Your task to perform on an android device: Go to Yahoo.com Image 0: 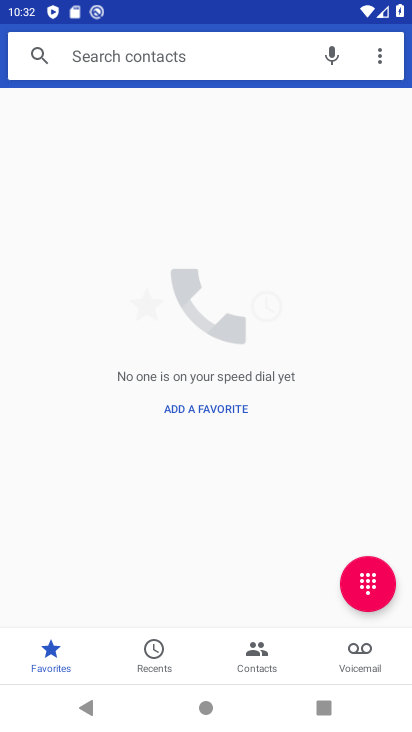
Step 0: press home button
Your task to perform on an android device: Go to Yahoo.com Image 1: 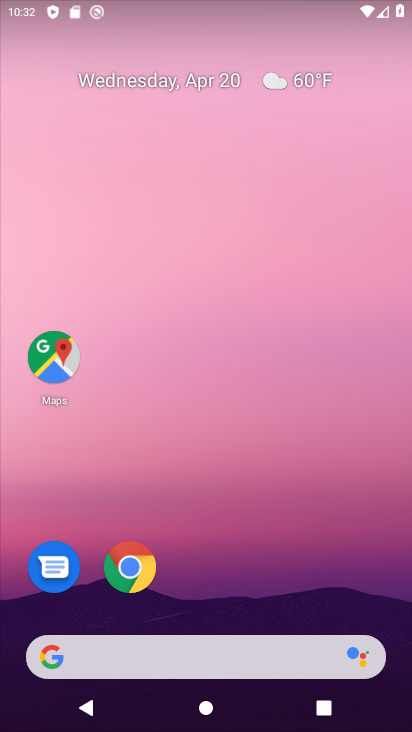
Step 1: click (124, 572)
Your task to perform on an android device: Go to Yahoo.com Image 2: 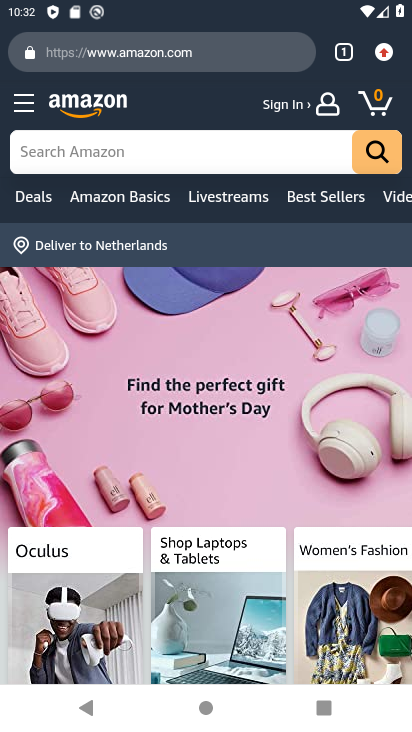
Step 2: click (339, 52)
Your task to perform on an android device: Go to Yahoo.com Image 3: 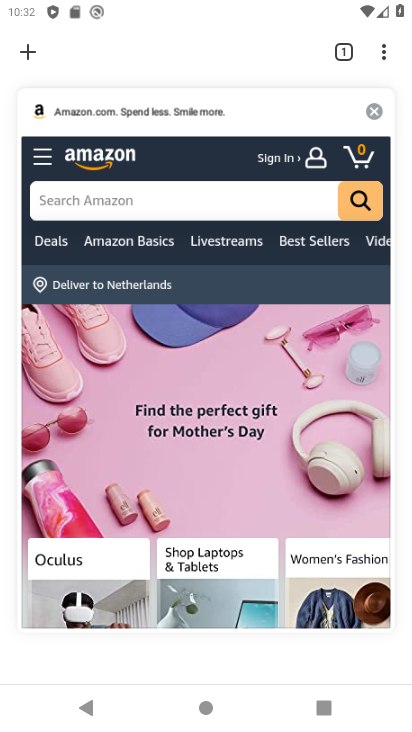
Step 3: click (376, 107)
Your task to perform on an android device: Go to Yahoo.com Image 4: 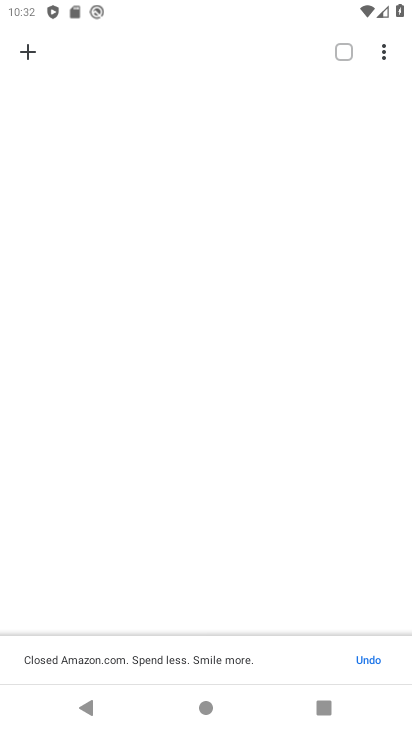
Step 4: click (30, 62)
Your task to perform on an android device: Go to Yahoo.com Image 5: 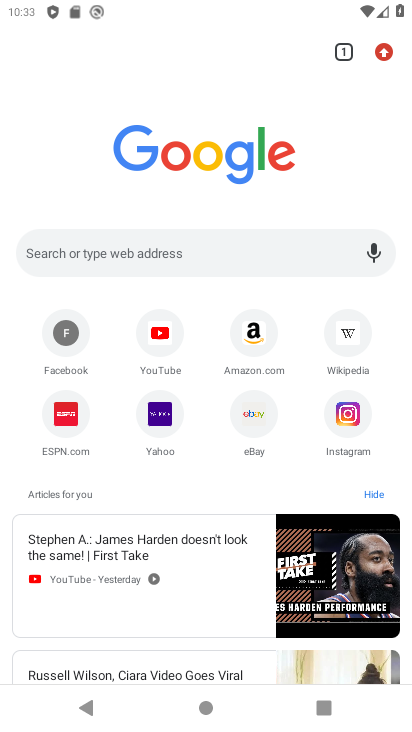
Step 5: click (145, 411)
Your task to perform on an android device: Go to Yahoo.com Image 6: 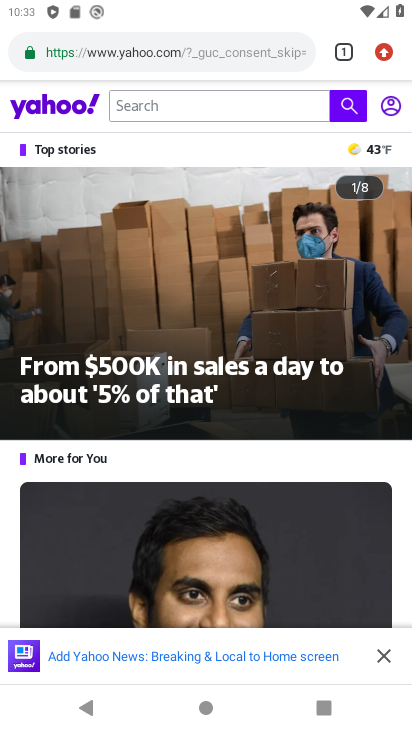
Step 6: task complete